Your task to perform on an android device: What's the weather going to be this weekend? Image 0: 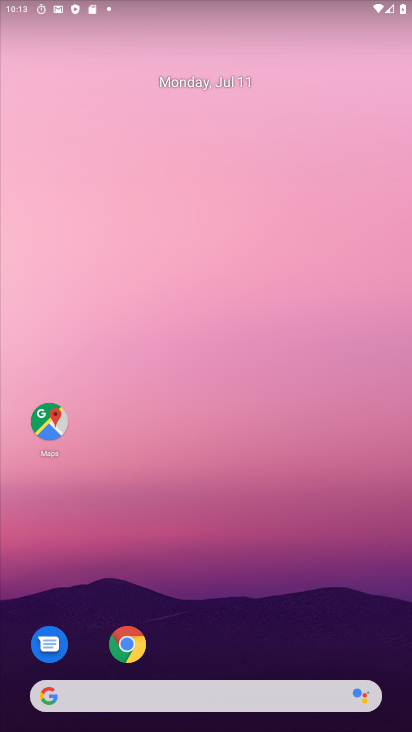
Step 0: drag from (262, 614) to (290, 111)
Your task to perform on an android device: What's the weather going to be this weekend? Image 1: 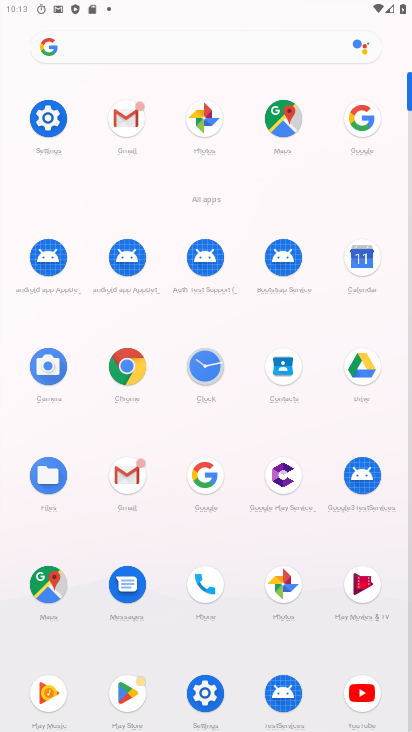
Step 1: click (205, 472)
Your task to perform on an android device: What's the weather going to be this weekend? Image 2: 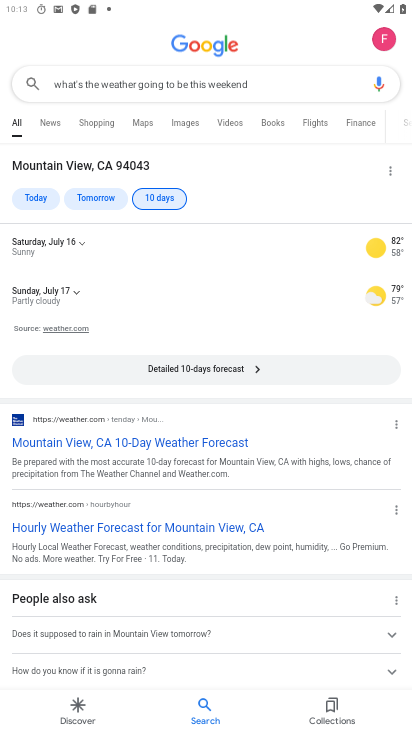
Step 2: task complete